Your task to perform on an android device: turn on sleep mode Image 0: 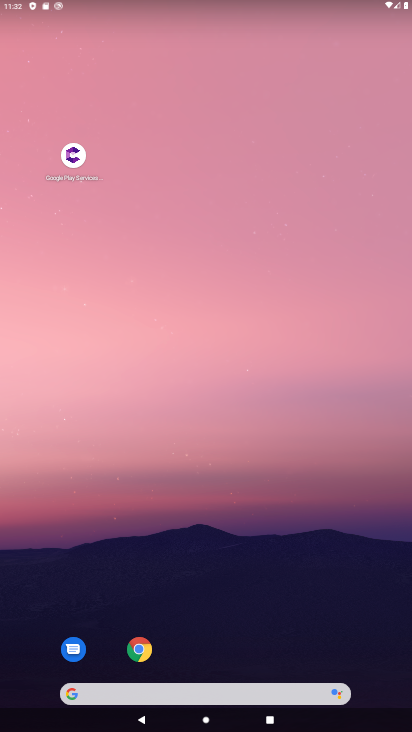
Step 0: drag from (241, 624) to (300, 29)
Your task to perform on an android device: turn on sleep mode Image 1: 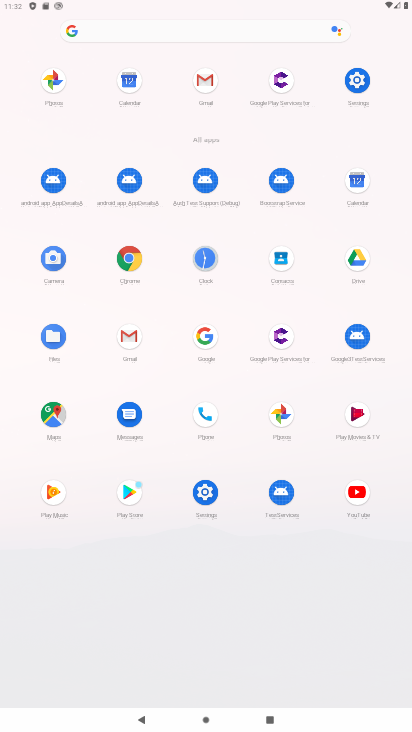
Step 1: click (359, 77)
Your task to perform on an android device: turn on sleep mode Image 2: 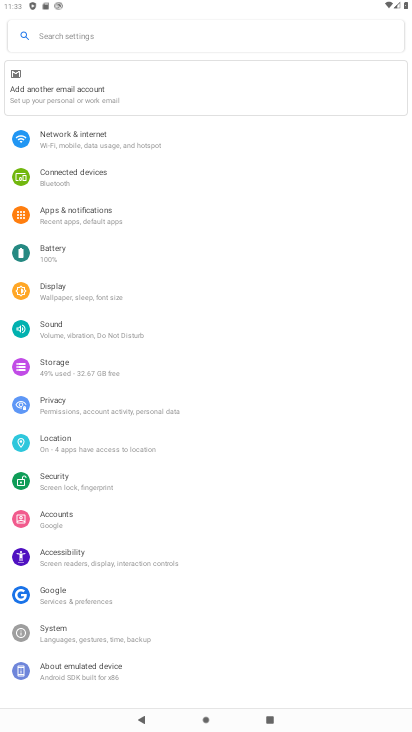
Step 2: click (74, 289)
Your task to perform on an android device: turn on sleep mode Image 3: 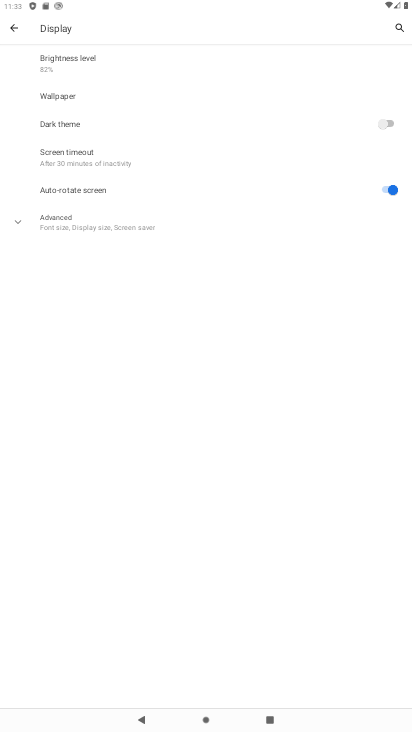
Step 3: click (154, 224)
Your task to perform on an android device: turn on sleep mode Image 4: 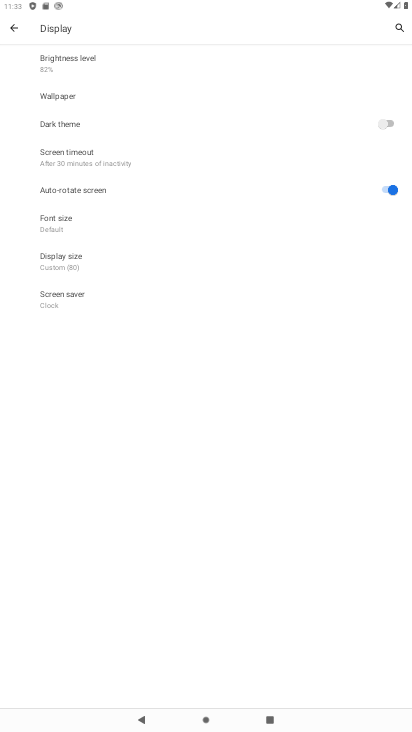
Step 4: task complete